Your task to perform on an android device: Check the weather Image 0: 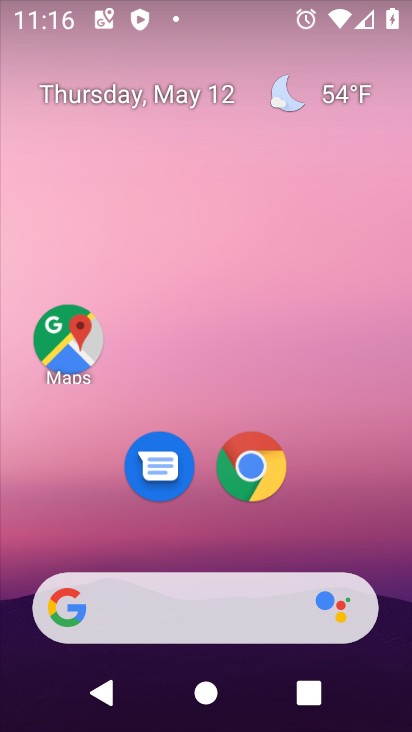
Step 0: drag from (350, 516) to (302, 80)
Your task to perform on an android device: Check the weather Image 1: 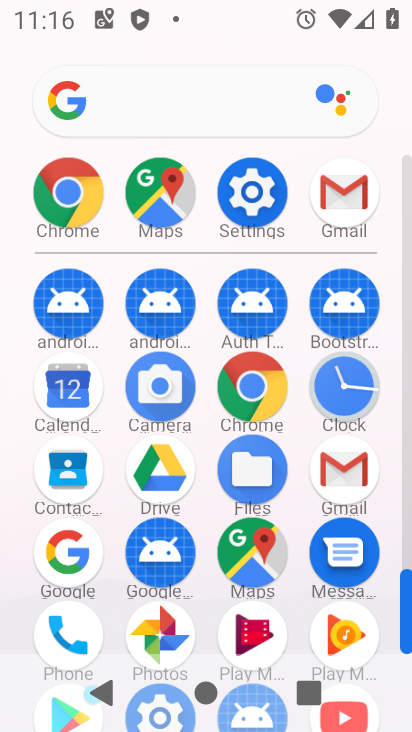
Step 1: click (250, 401)
Your task to perform on an android device: Check the weather Image 2: 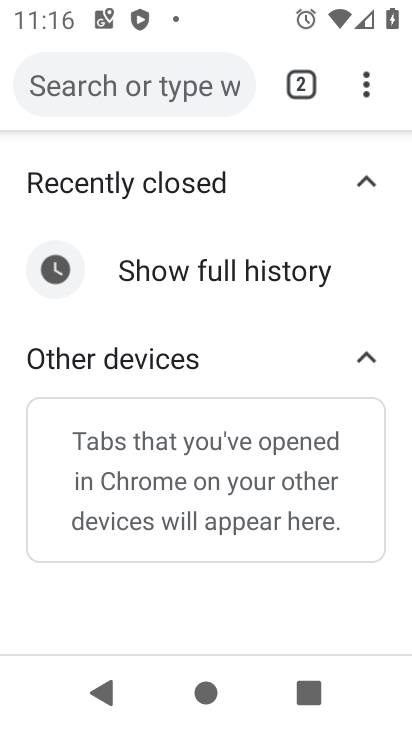
Step 2: click (173, 94)
Your task to perform on an android device: Check the weather Image 3: 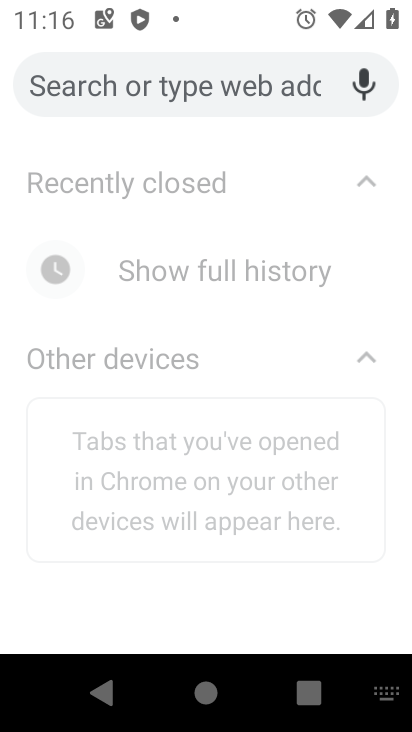
Step 3: type "check the weather"
Your task to perform on an android device: Check the weather Image 4: 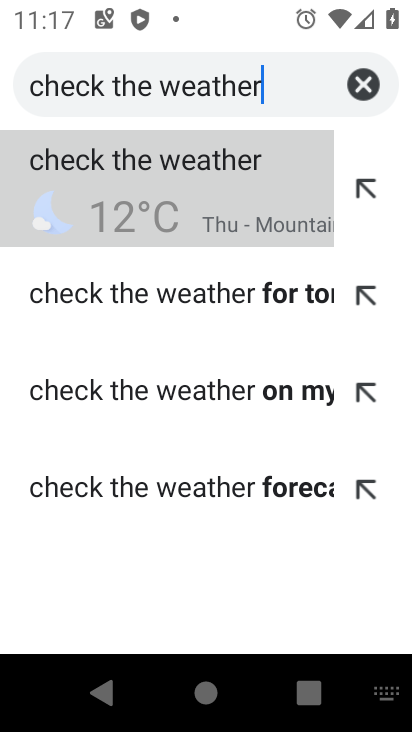
Step 4: click (160, 184)
Your task to perform on an android device: Check the weather Image 5: 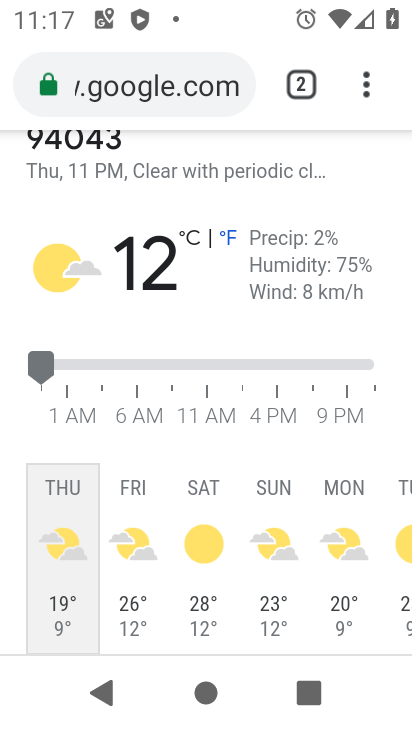
Step 5: task complete